Your task to perform on an android device: Search for Mexican restaurants on Maps Image 0: 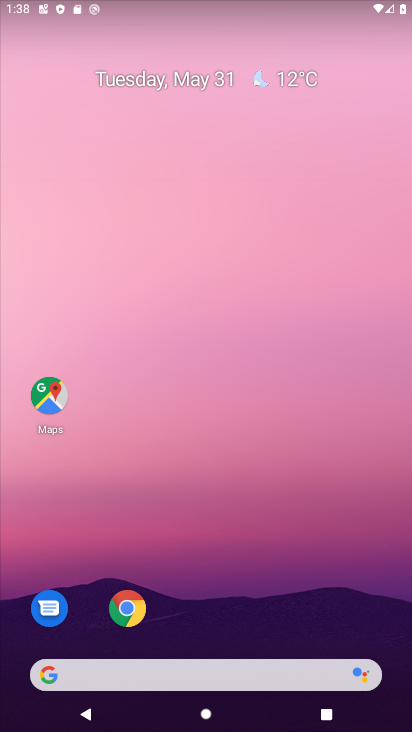
Step 0: press home button
Your task to perform on an android device: Search for Mexican restaurants on Maps Image 1: 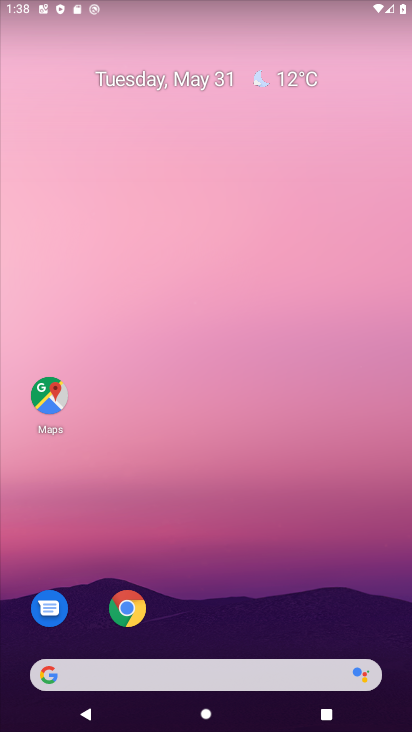
Step 1: drag from (301, 591) to (292, 229)
Your task to perform on an android device: Search for Mexican restaurants on Maps Image 2: 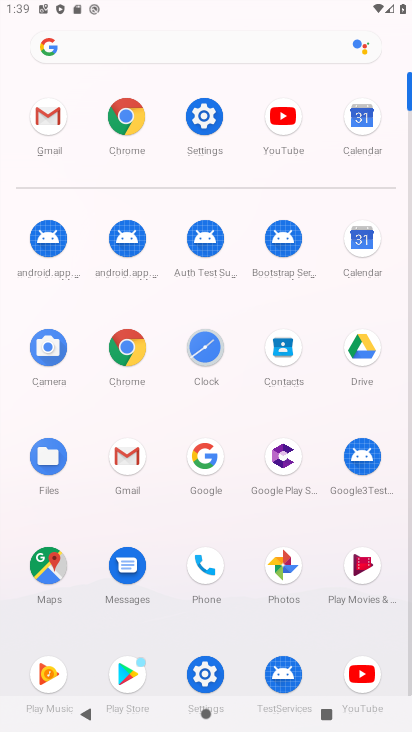
Step 2: click (43, 578)
Your task to perform on an android device: Search for Mexican restaurants on Maps Image 3: 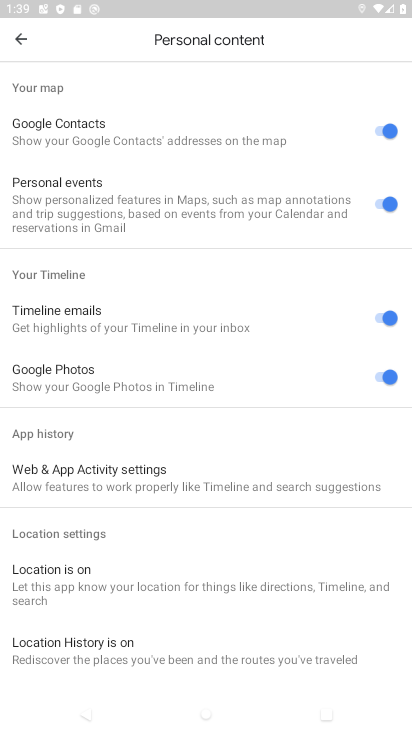
Step 3: click (6, 42)
Your task to perform on an android device: Search for Mexican restaurants on Maps Image 4: 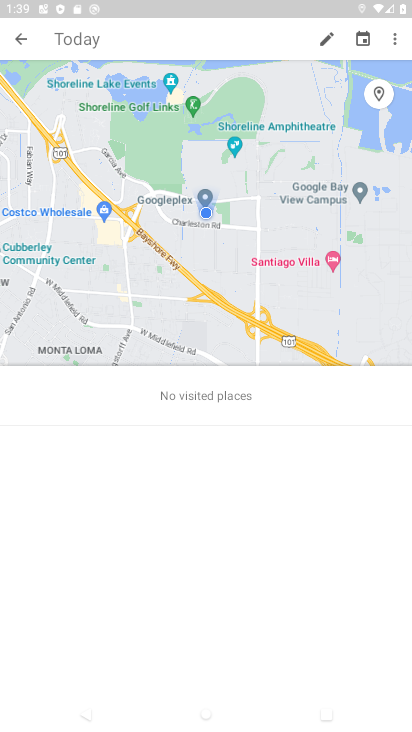
Step 4: click (16, 39)
Your task to perform on an android device: Search for Mexican restaurants on Maps Image 5: 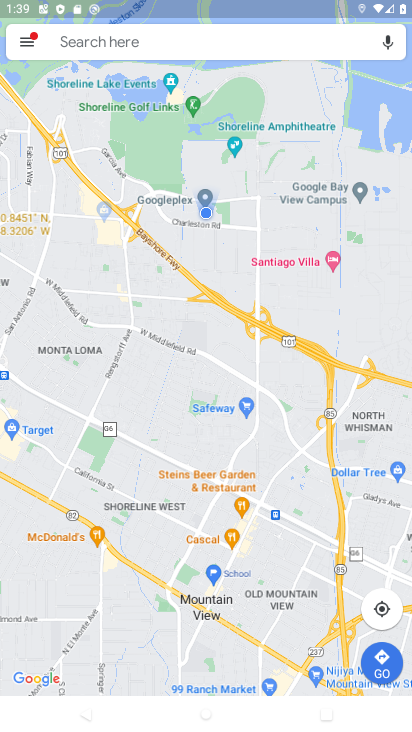
Step 5: click (132, 39)
Your task to perform on an android device: Search for Mexican restaurants on Maps Image 6: 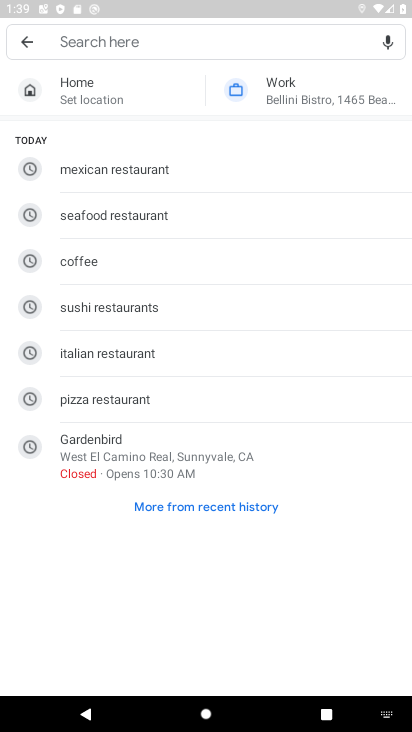
Step 6: click (109, 169)
Your task to perform on an android device: Search for Mexican restaurants on Maps Image 7: 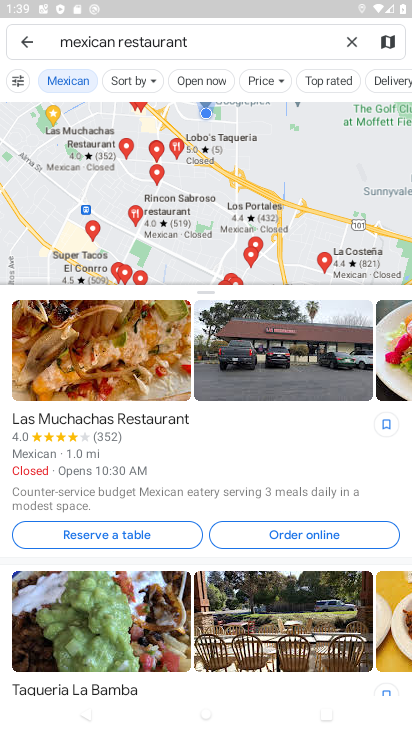
Step 7: task complete